Your task to perform on an android device: When is my next meeting? Image 0: 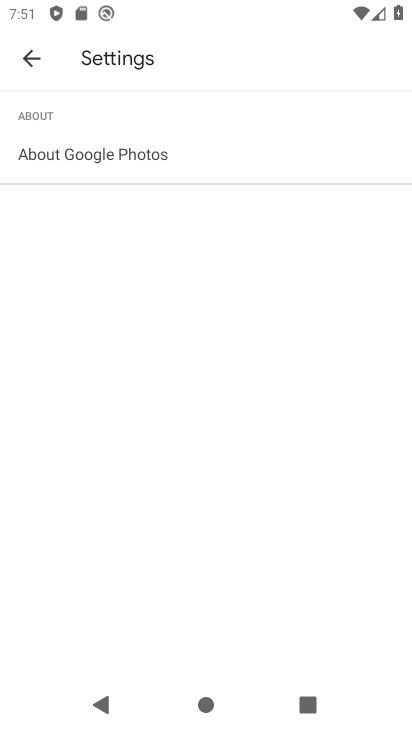
Step 0: press home button
Your task to perform on an android device: When is my next meeting? Image 1: 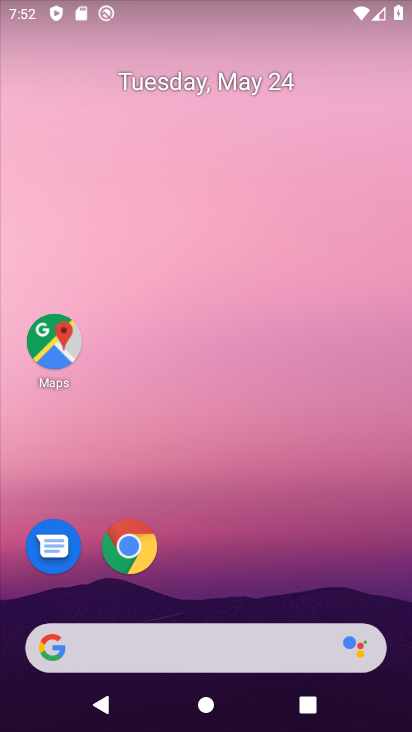
Step 1: drag from (282, 528) to (244, 15)
Your task to perform on an android device: When is my next meeting? Image 2: 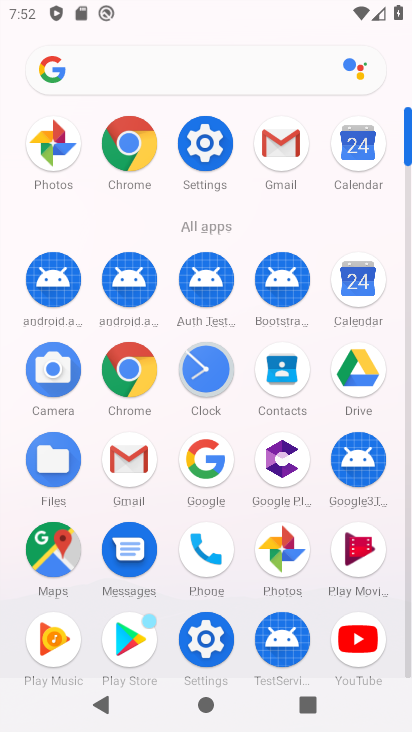
Step 2: click (358, 138)
Your task to perform on an android device: When is my next meeting? Image 3: 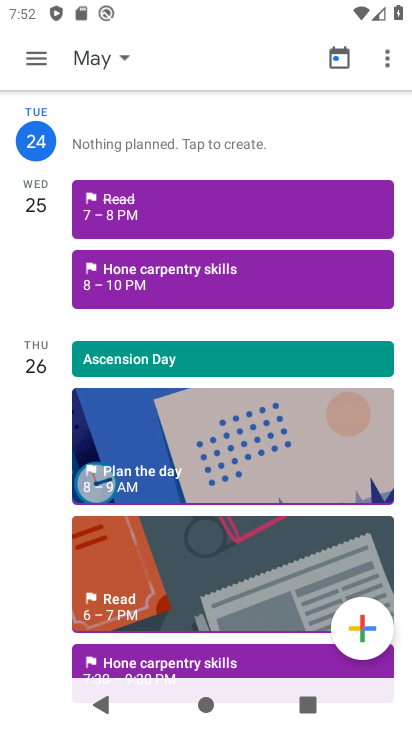
Step 3: task complete